Your task to perform on an android device: Open Google Maps Image 0: 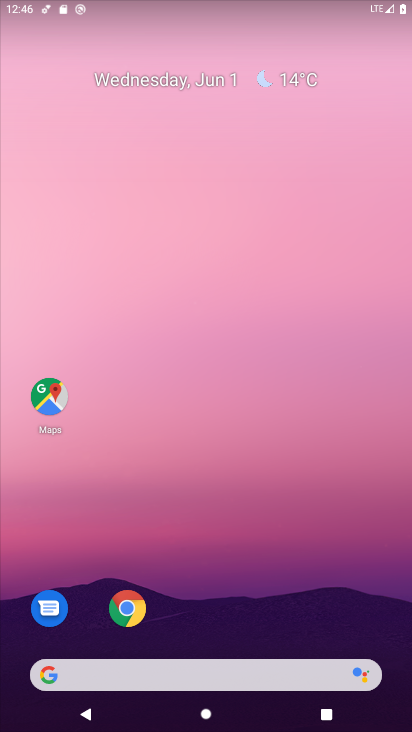
Step 0: click (51, 382)
Your task to perform on an android device: Open Google Maps Image 1: 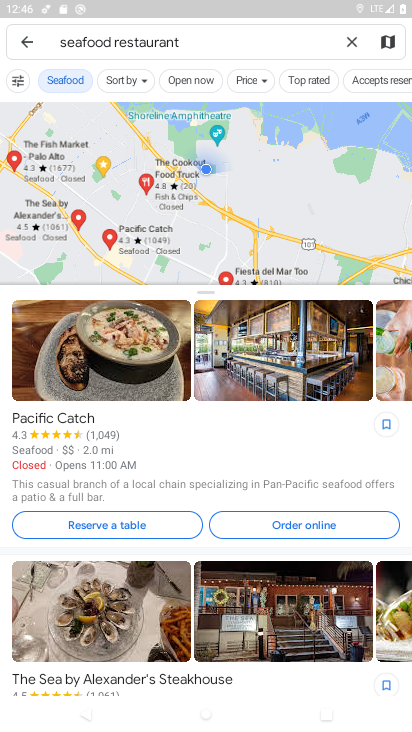
Step 1: click (20, 41)
Your task to perform on an android device: Open Google Maps Image 2: 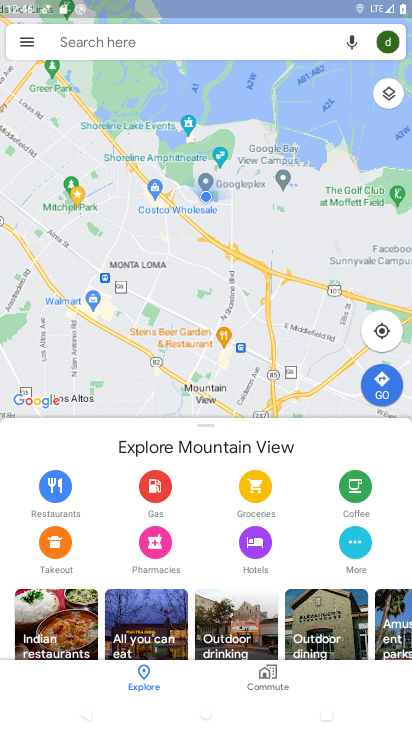
Step 2: task complete